Your task to perform on an android device: turn off notifications in google photos Image 0: 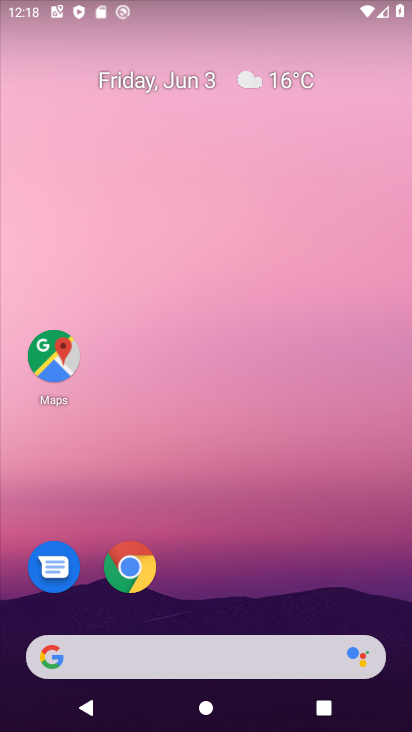
Step 0: drag from (305, 581) to (289, 147)
Your task to perform on an android device: turn off notifications in google photos Image 1: 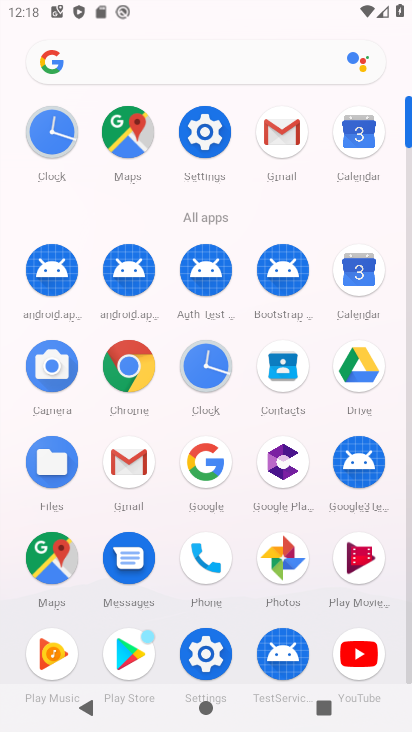
Step 1: click (271, 549)
Your task to perform on an android device: turn off notifications in google photos Image 2: 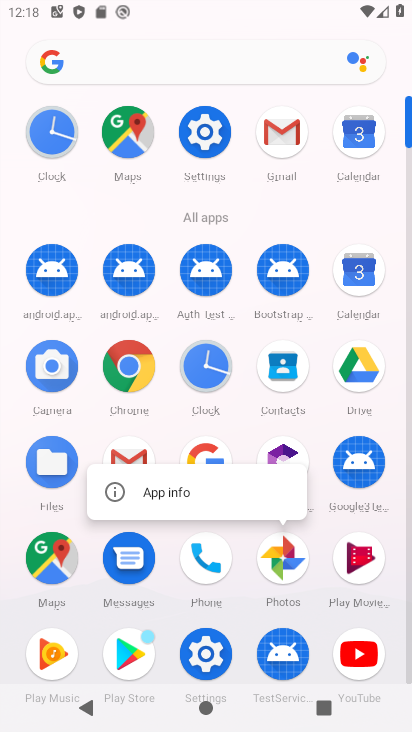
Step 2: click (256, 489)
Your task to perform on an android device: turn off notifications in google photos Image 3: 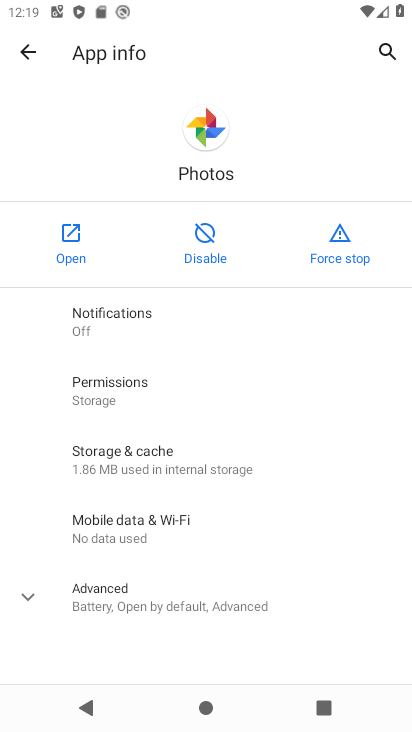
Step 3: click (170, 324)
Your task to perform on an android device: turn off notifications in google photos Image 4: 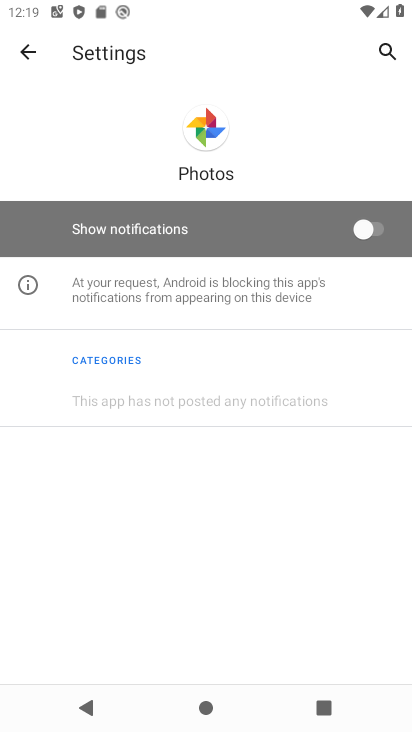
Step 4: task complete